Your task to perform on an android device: search for starred emails in the gmail app Image 0: 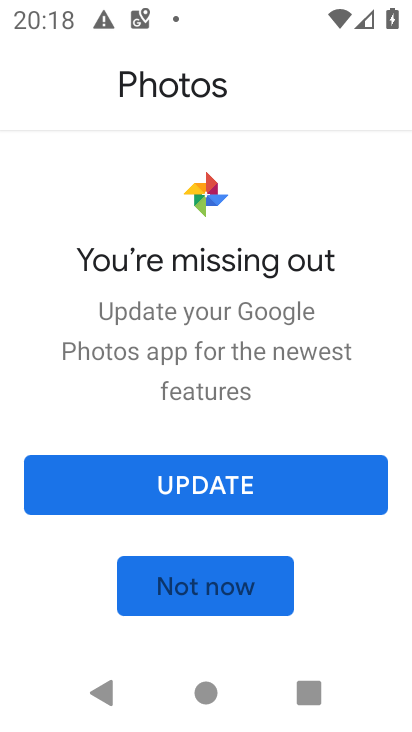
Step 0: press back button
Your task to perform on an android device: search for starred emails in the gmail app Image 1: 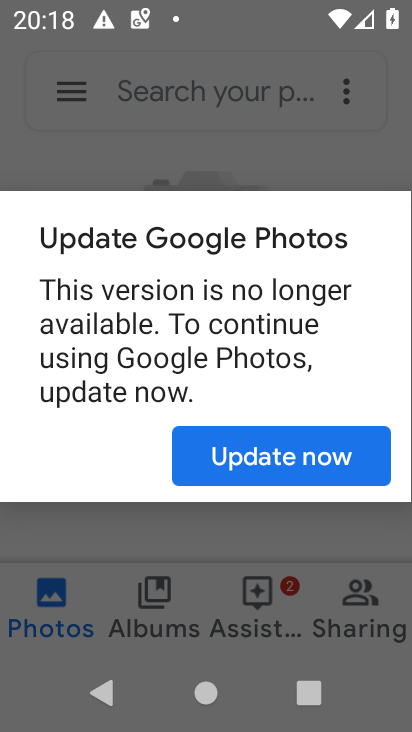
Step 1: press home button
Your task to perform on an android device: search for starred emails in the gmail app Image 2: 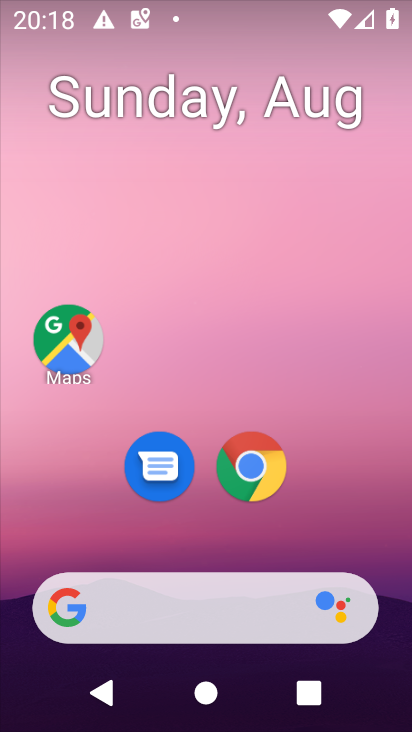
Step 2: drag from (336, 515) to (299, 100)
Your task to perform on an android device: search for starred emails in the gmail app Image 3: 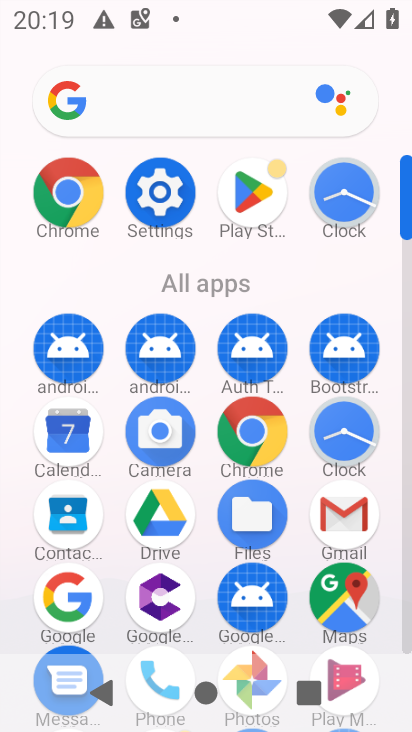
Step 3: drag from (201, 305) to (280, 127)
Your task to perform on an android device: search for starred emails in the gmail app Image 4: 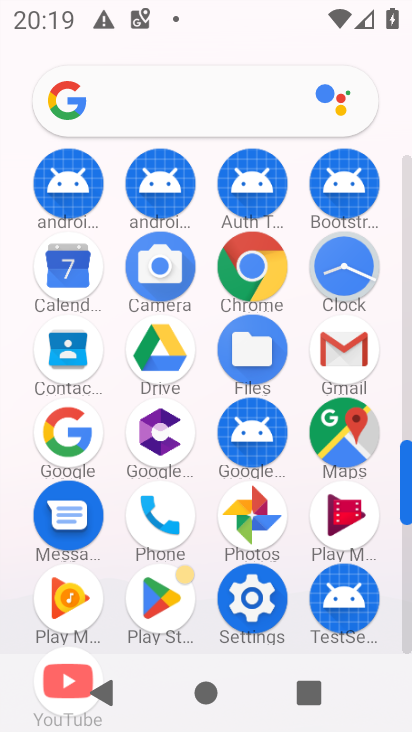
Step 4: click (346, 363)
Your task to perform on an android device: search for starred emails in the gmail app Image 5: 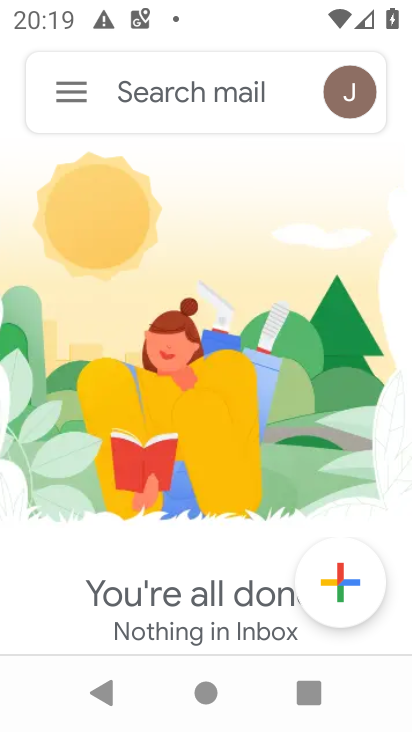
Step 5: click (73, 111)
Your task to perform on an android device: search for starred emails in the gmail app Image 6: 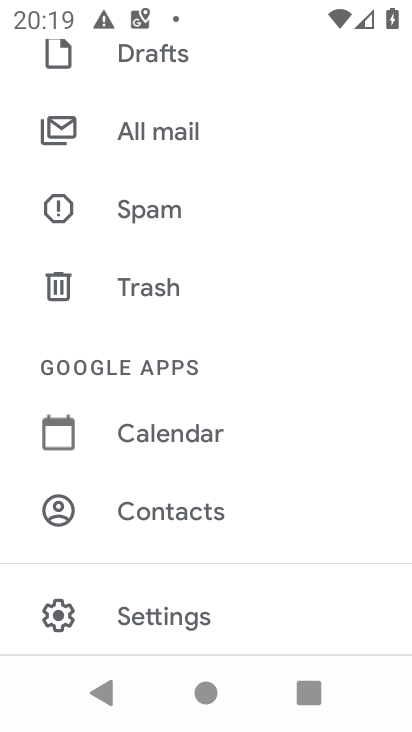
Step 6: drag from (188, 232) to (242, 615)
Your task to perform on an android device: search for starred emails in the gmail app Image 7: 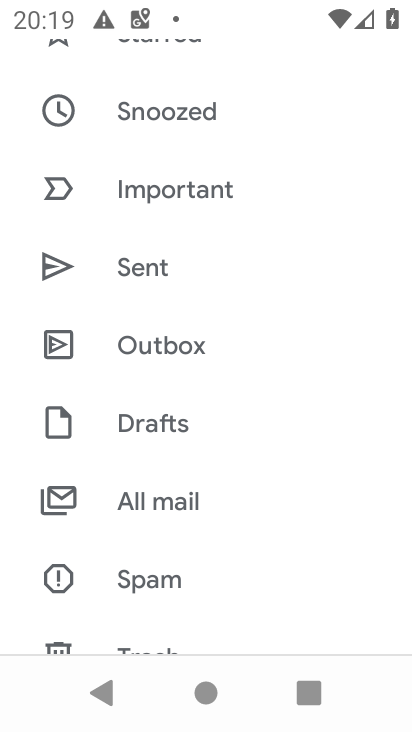
Step 7: drag from (182, 150) to (214, 302)
Your task to perform on an android device: search for starred emails in the gmail app Image 8: 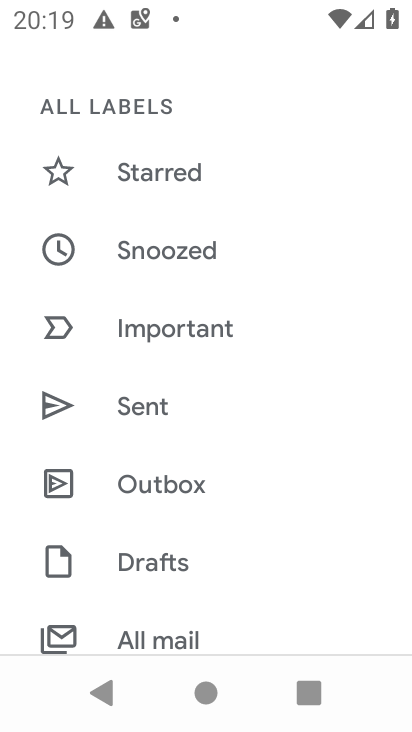
Step 8: click (138, 183)
Your task to perform on an android device: search for starred emails in the gmail app Image 9: 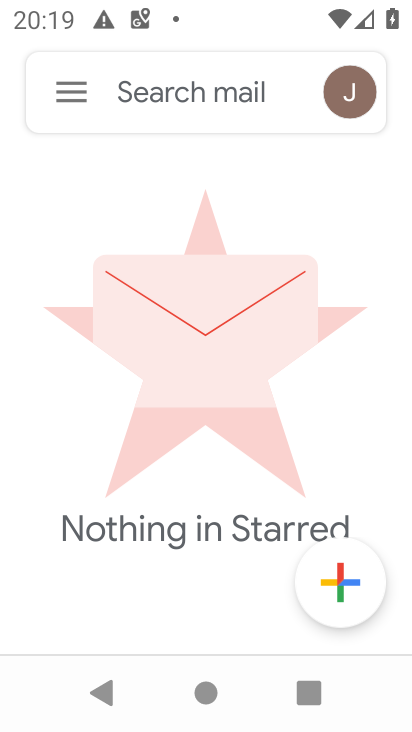
Step 9: task complete